Your task to perform on an android device: Search for "logitech g pro" on walmart.com, select the first entry, and add it to the cart. Image 0: 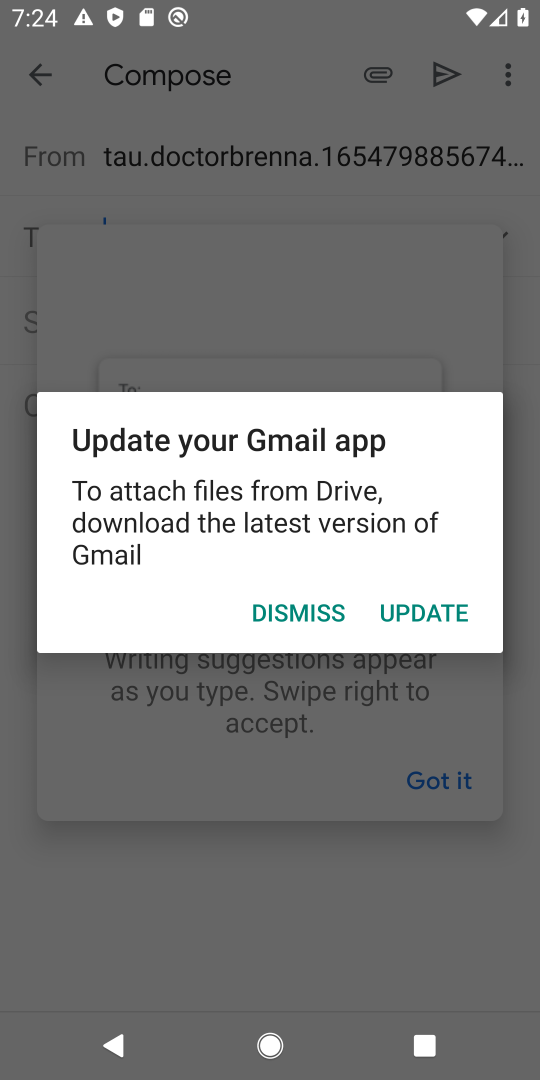
Step 0: press home button
Your task to perform on an android device: Search for "logitech g pro" on walmart.com, select the first entry, and add it to the cart. Image 1: 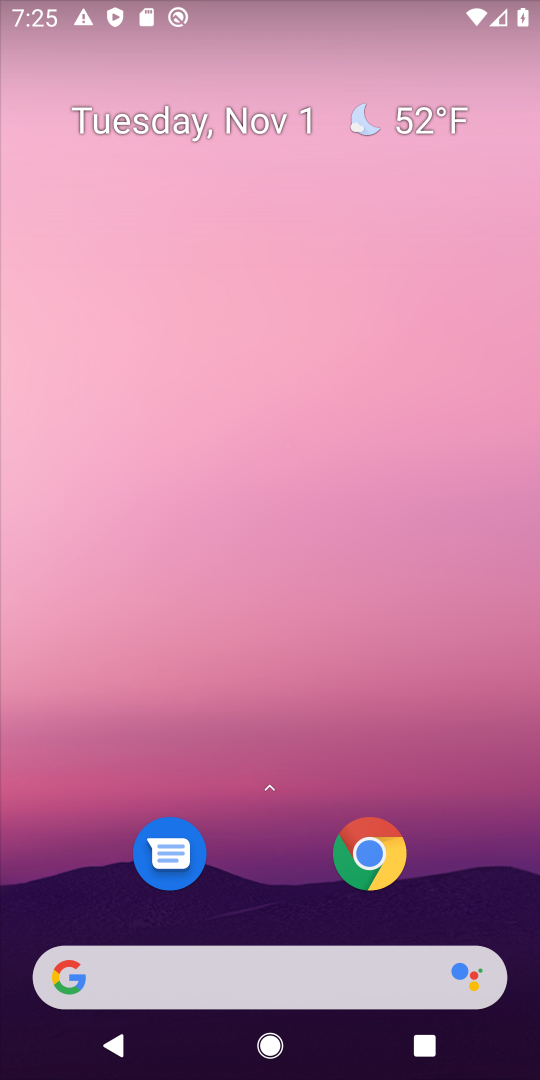
Step 1: click (264, 990)
Your task to perform on an android device: Search for "logitech g pro" on walmart.com, select the first entry, and add it to the cart. Image 2: 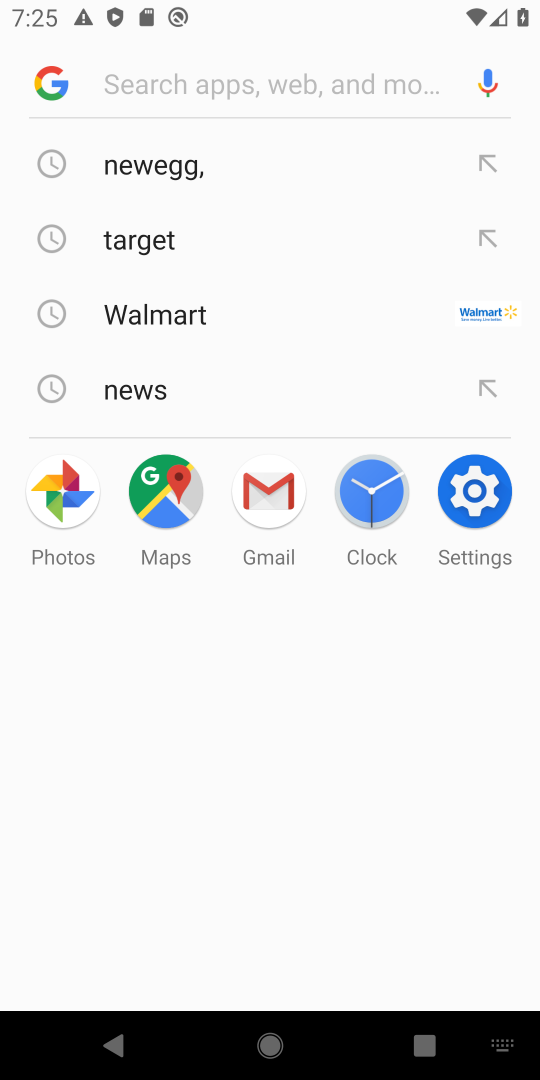
Step 2: click (183, 325)
Your task to perform on an android device: Search for "logitech g pro" on walmart.com, select the first entry, and add it to the cart. Image 3: 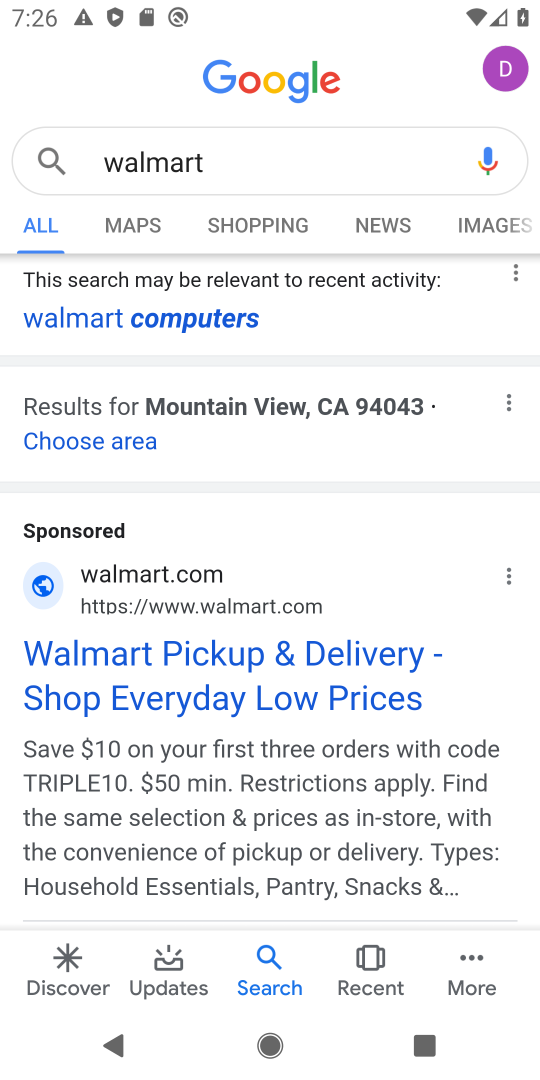
Step 3: click (166, 648)
Your task to perform on an android device: Search for "logitech g pro" on walmart.com, select the first entry, and add it to the cart. Image 4: 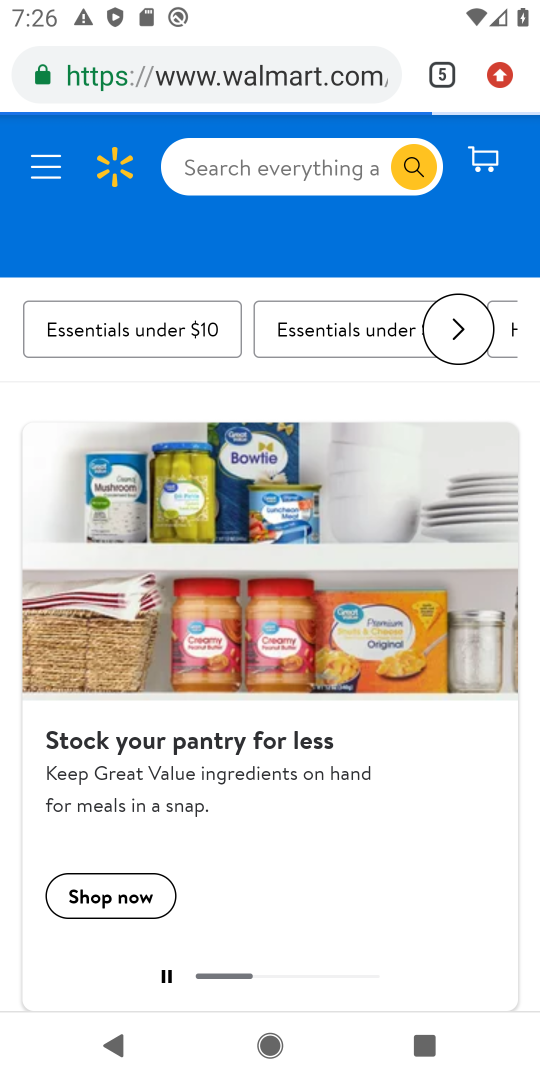
Step 4: click (278, 173)
Your task to perform on an android device: Search for "logitech g pro" on walmart.com, select the first entry, and add it to the cart. Image 5: 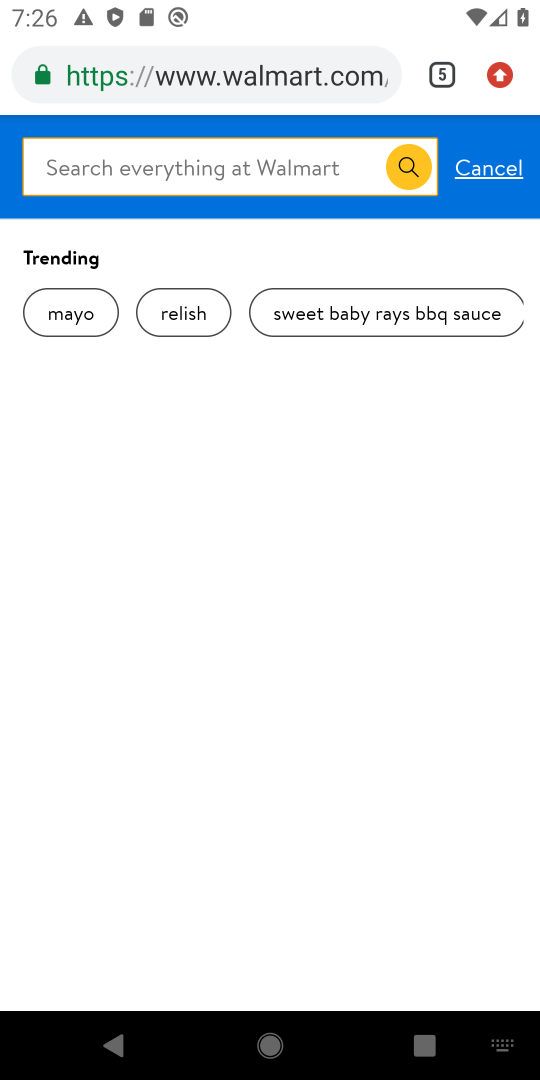
Step 5: type "logitech g pro"
Your task to perform on an android device: Search for "logitech g pro" on walmart.com, select the first entry, and add it to the cart. Image 6: 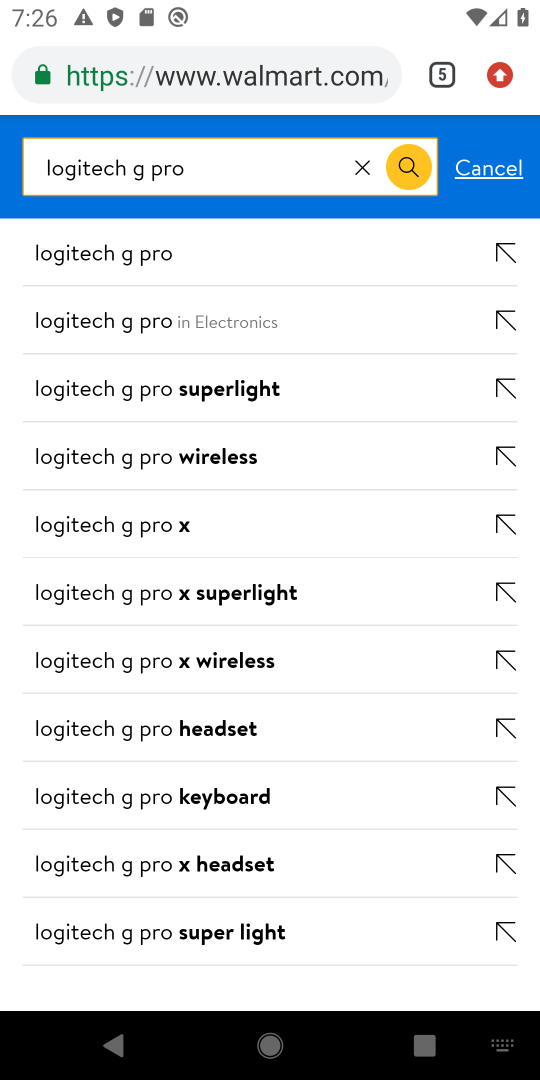
Step 6: click (143, 256)
Your task to perform on an android device: Search for "logitech g pro" on walmart.com, select the first entry, and add it to the cart. Image 7: 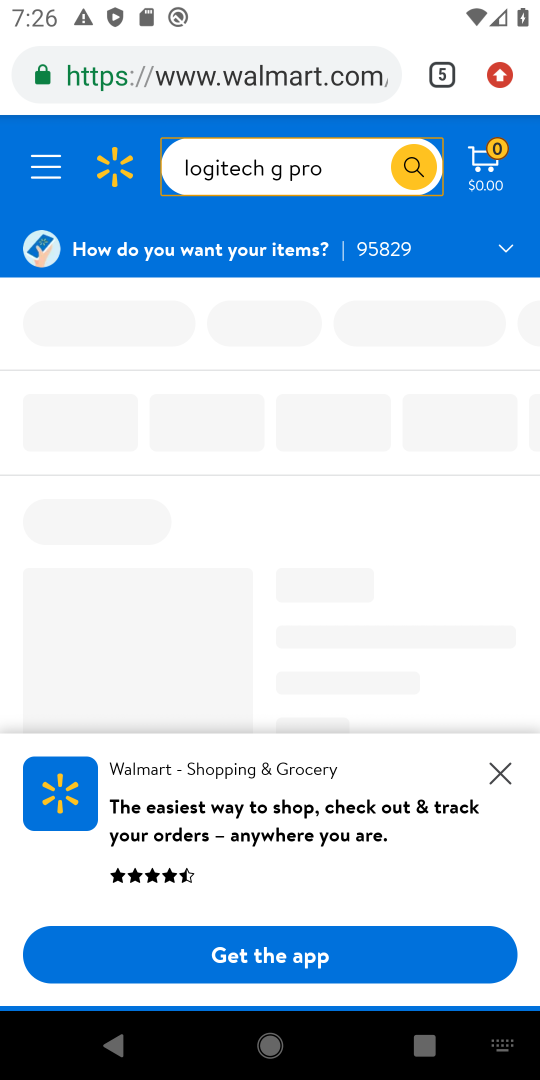
Step 7: click (505, 769)
Your task to perform on an android device: Search for "logitech g pro" on walmart.com, select the first entry, and add it to the cart. Image 8: 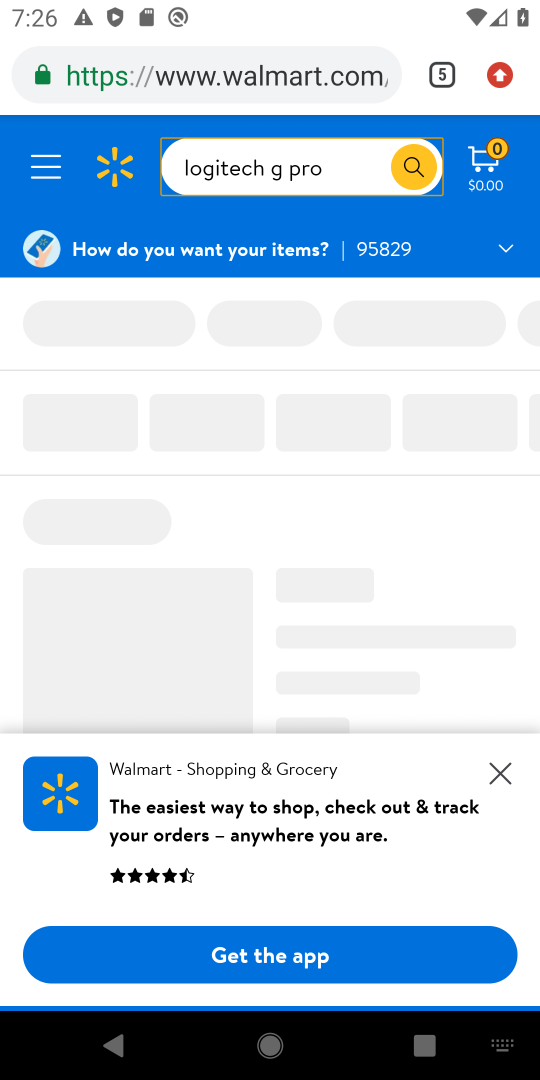
Step 8: click (424, 173)
Your task to perform on an android device: Search for "logitech g pro" on walmart.com, select the first entry, and add it to the cart. Image 9: 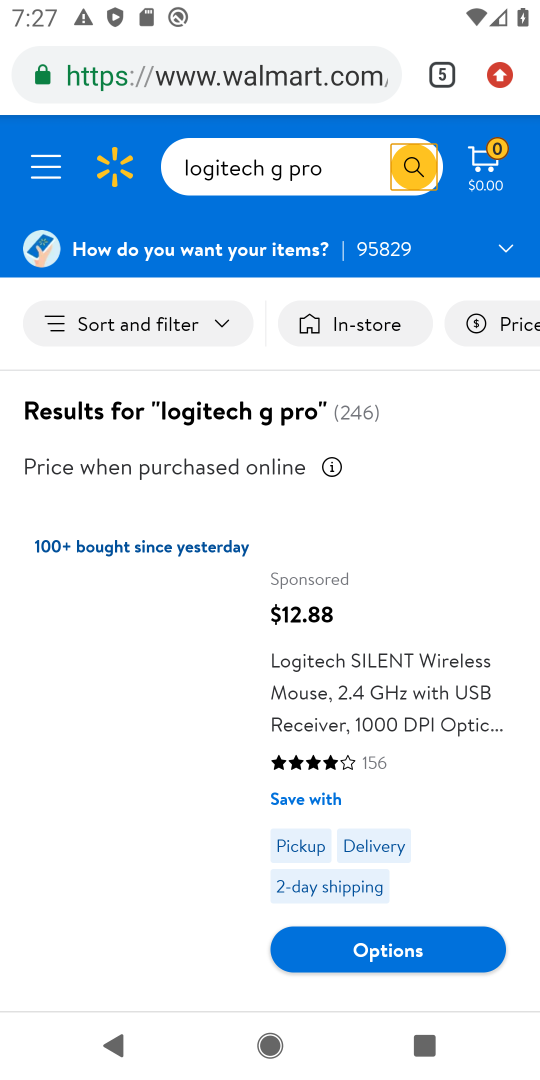
Step 9: click (507, 768)
Your task to perform on an android device: Search for "logitech g pro" on walmart.com, select the first entry, and add it to the cart. Image 10: 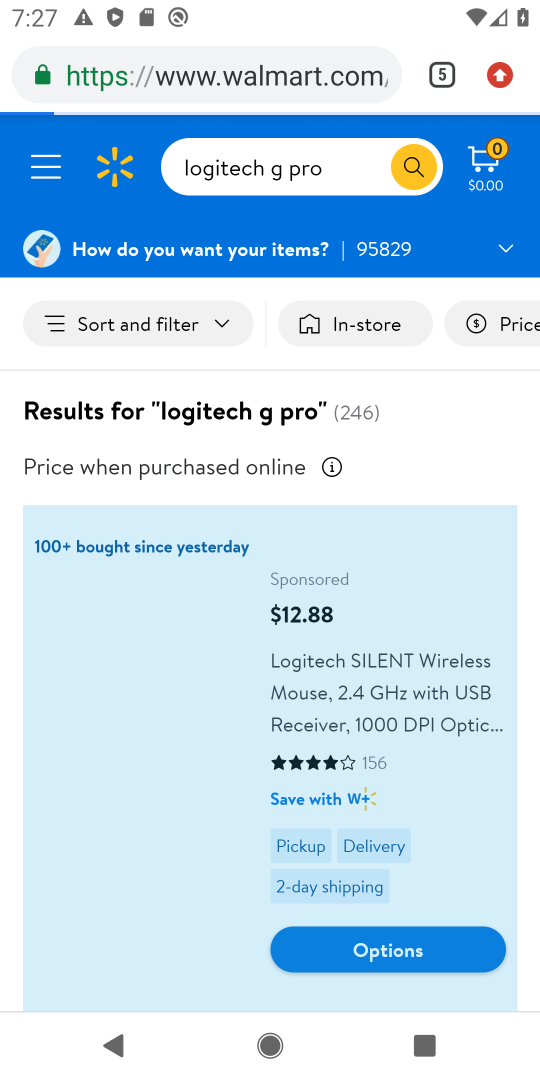
Step 10: click (422, 944)
Your task to perform on an android device: Search for "logitech g pro" on walmart.com, select the first entry, and add it to the cart. Image 11: 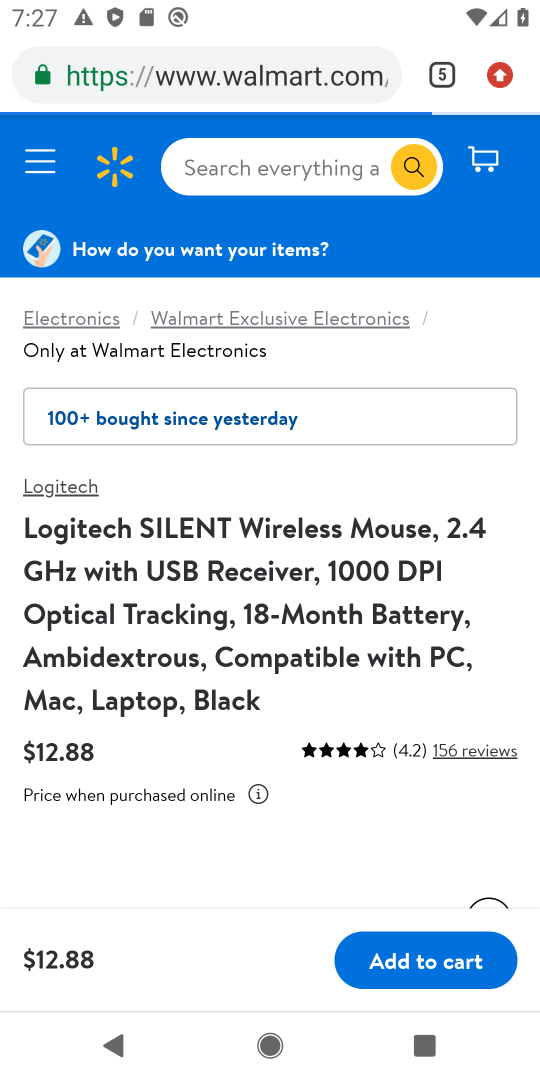
Step 11: click (417, 955)
Your task to perform on an android device: Search for "logitech g pro" on walmart.com, select the first entry, and add it to the cart. Image 12: 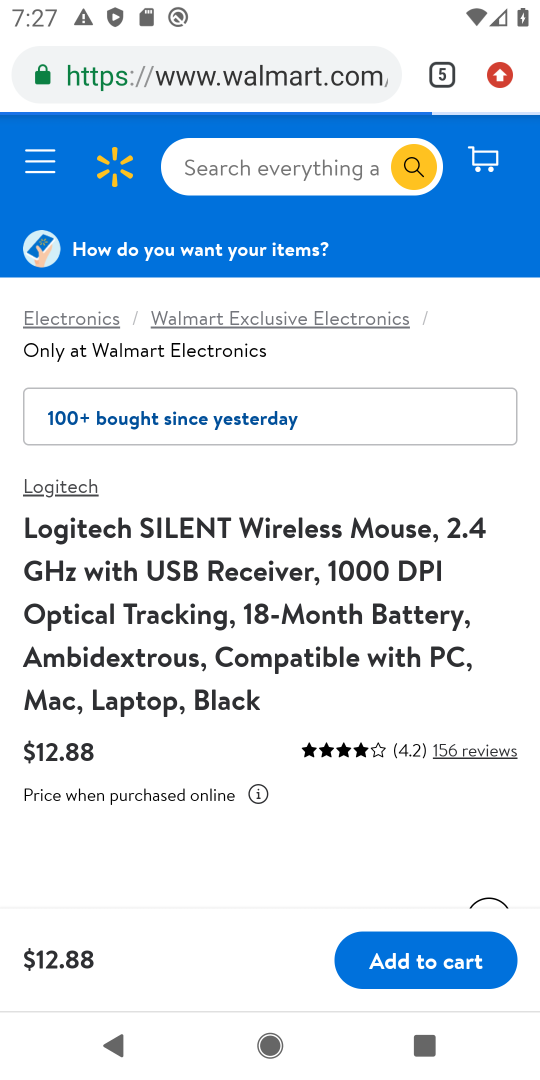
Step 12: task complete